Your task to perform on an android device: Go to settings Image 0: 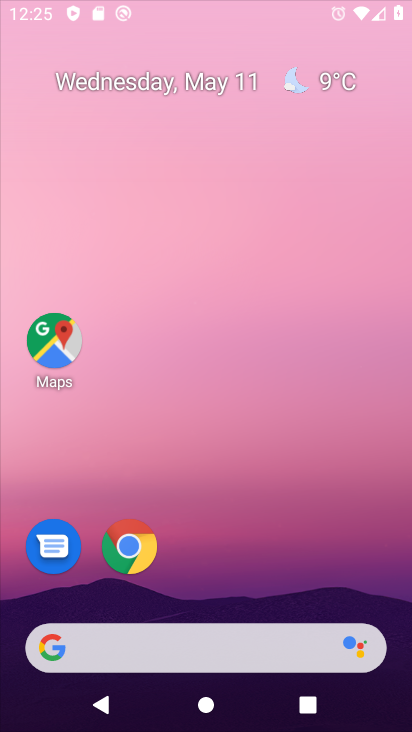
Step 0: click (192, 173)
Your task to perform on an android device: Go to settings Image 1: 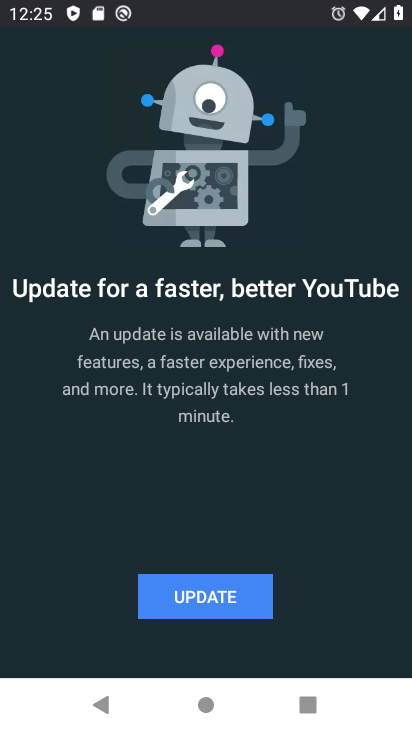
Step 1: drag from (264, 504) to (241, 258)
Your task to perform on an android device: Go to settings Image 2: 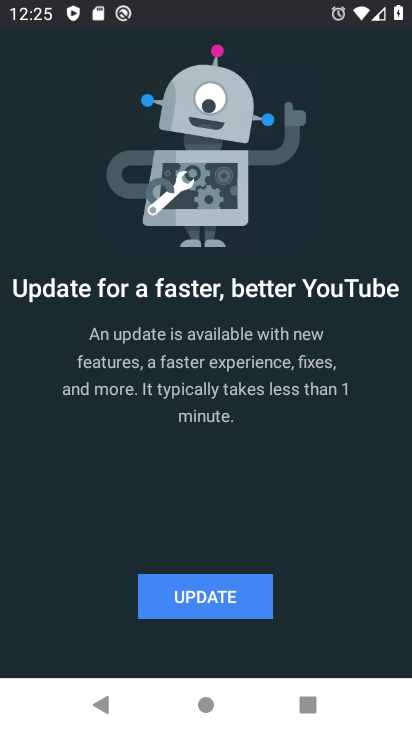
Step 2: drag from (234, 539) to (244, 435)
Your task to perform on an android device: Go to settings Image 3: 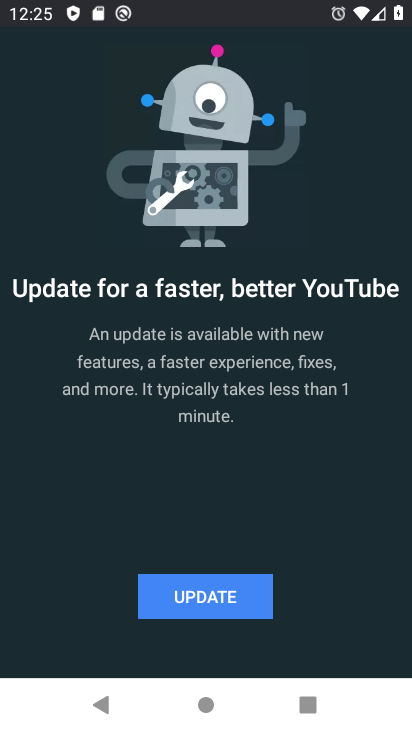
Step 3: drag from (237, 567) to (256, 342)
Your task to perform on an android device: Go to settings Image 4: 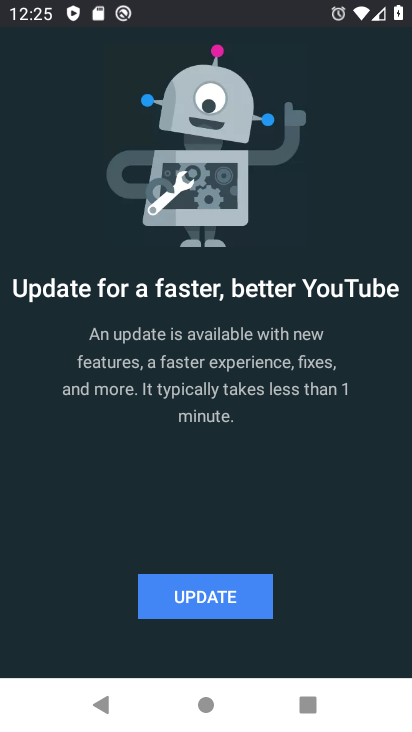
Step 4: drag from (239, 594) to (245, 329)
Your task to perform on an android device: Go to settings Image 5: 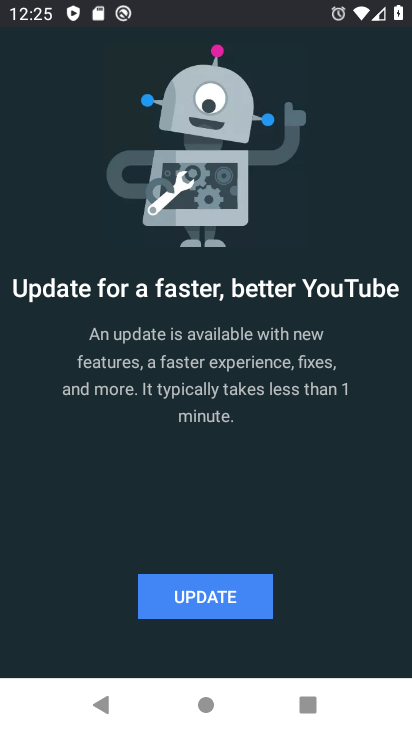
Step 5: press home button
Your task to perform on an android device: Go to settings Image 6: 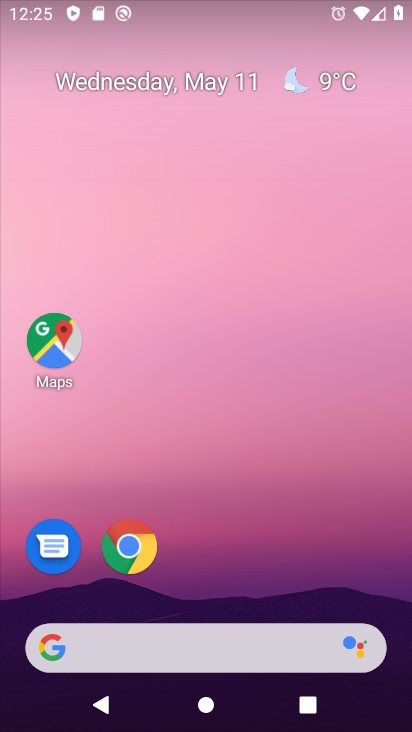
Step 6: drag from (245, 531) to (353, 0)
Your task to perform on an android device: Go to settings Image 7: 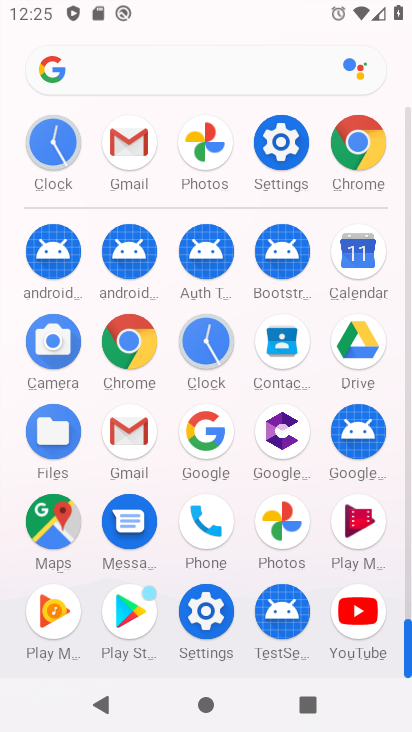
Step 7: click (277, 157)
Your task to perform on an android device: Go to settings Image 8: 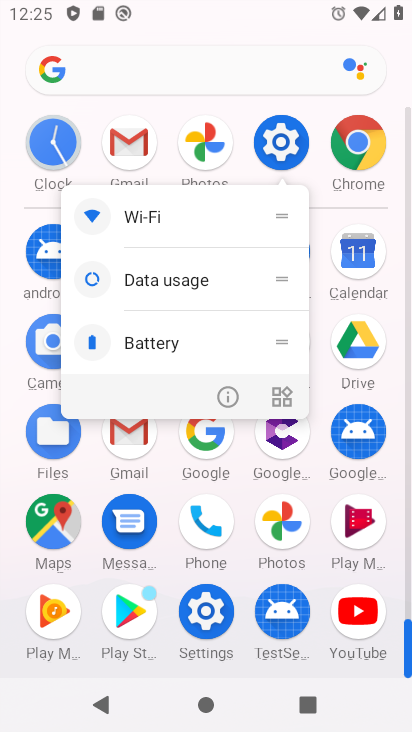
Step 8: click (224, 396)
Your task to perform on an android device: Go to settings Image 9: 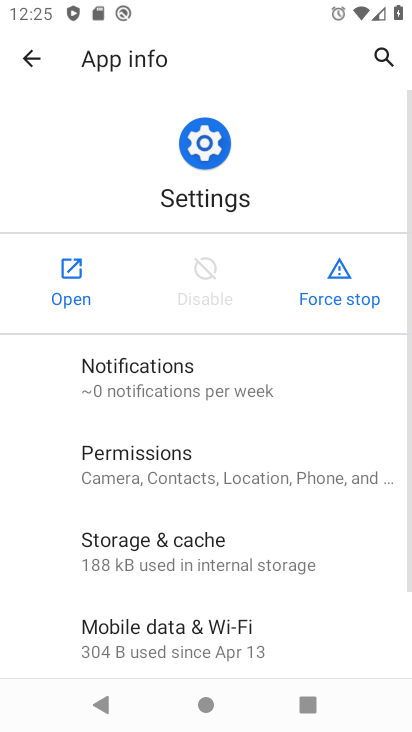
Step 9: click (80, 288)
Your task to perform on an android device: Go to settings Image 10: 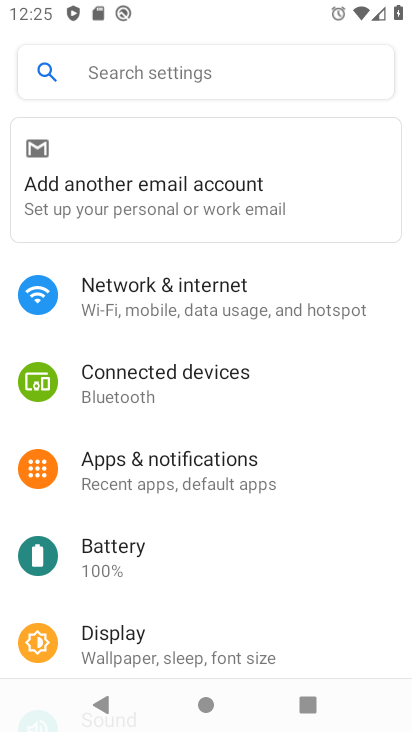
Step 10: task complete